Your task to perform on an android device: Go to CNN.com Image 0: 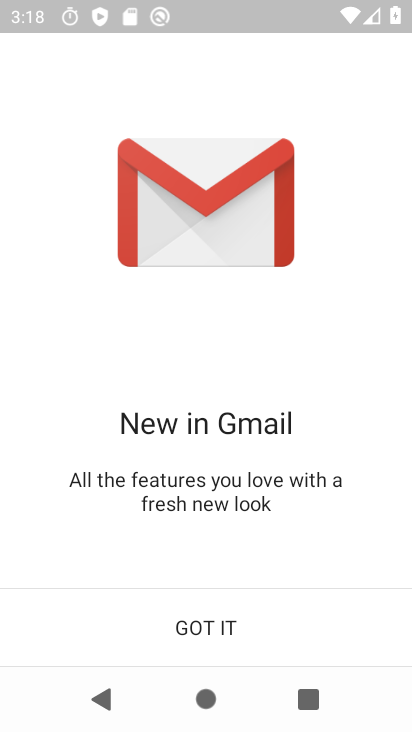
Step 0: press home button
Your task to perform on an android device: Go to CNN.com Image 1: 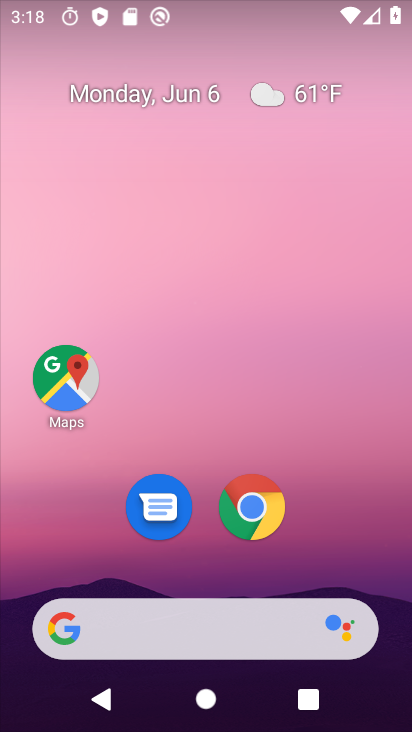
Step 1: click (245, 528)
Your task to perform on an android device: Go to CNN.com Image 2: 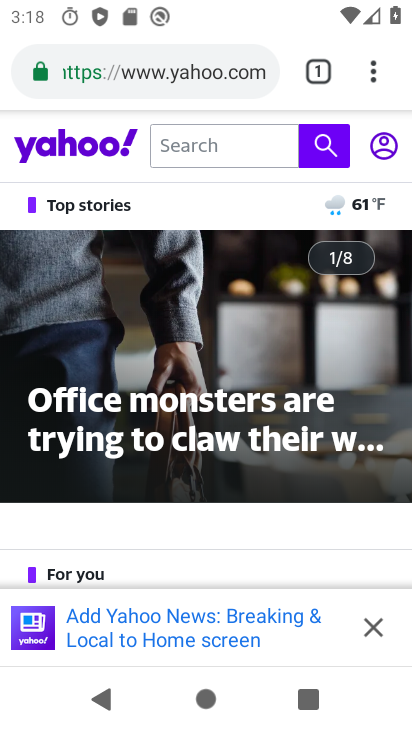
Step 2: click (316, 74)
Your task to perform on an android device: Go to CNN.com Image 3: 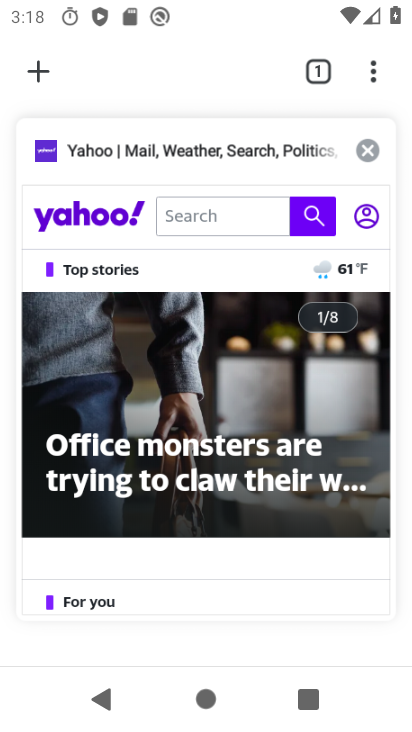
Step 3: click (36, 67)
Your task to perform on an android device: Go to CNN.com Image 4: 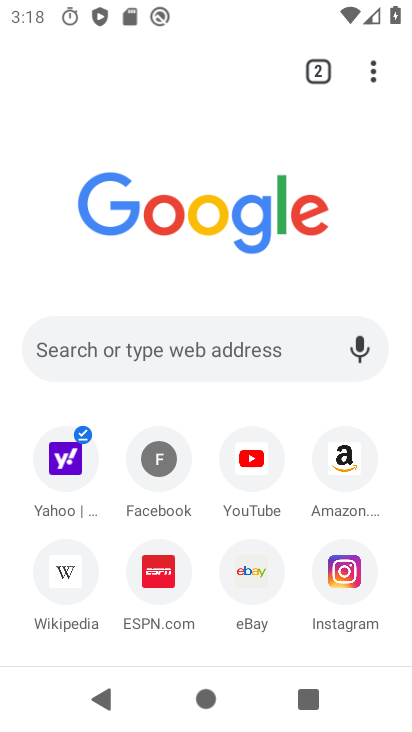
Step 4: click (174, 355)
Your task to perform on an android device: Go to CNN.com Image 5: 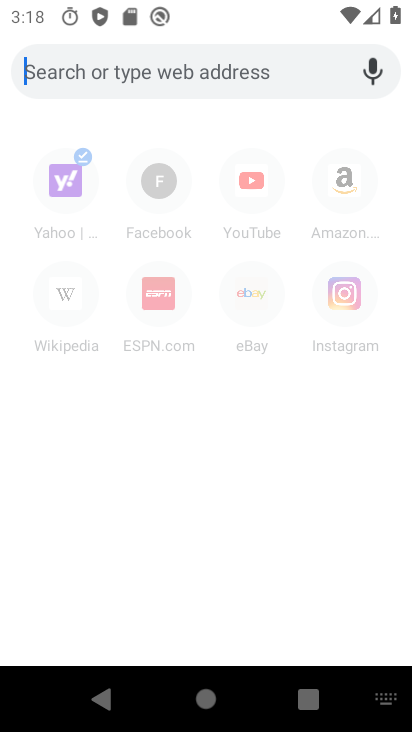
Step 5: type "CNN.com"
Your task to perform on an android device: Go to CNN.com Image 6: 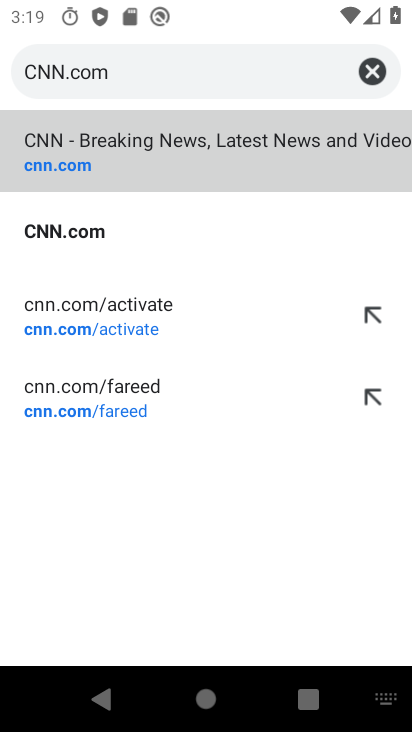
Step 6: click (104, 170)
Your task to perform on an android device: Go to CNN.com Image 7: 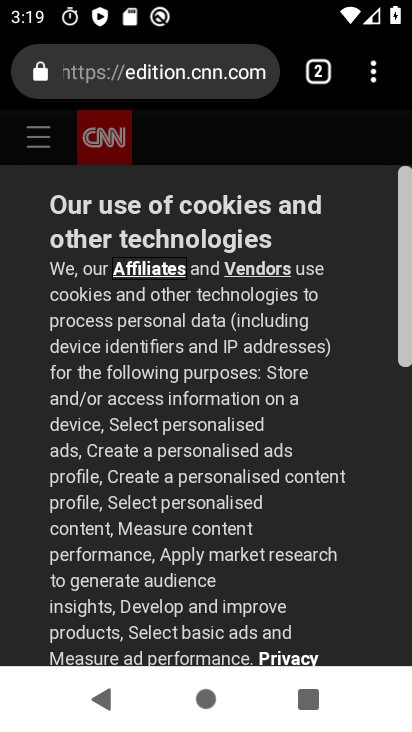
Step 7: task complete